Your task to perform on an android device: set default search engine in the chrome app Image 0: 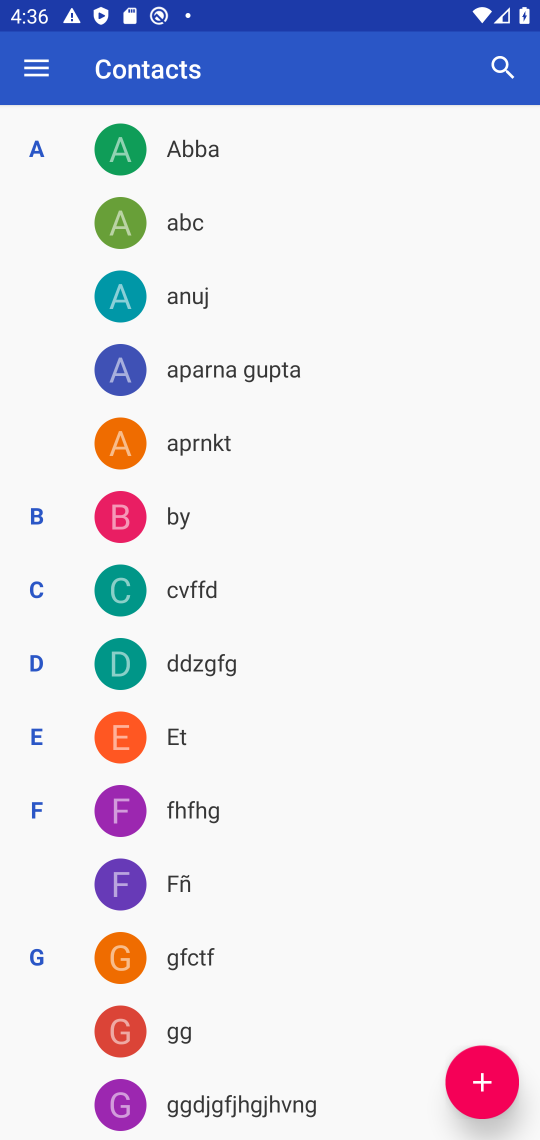
Step 0: press home button
Your task to perform on an android device: set default search engine in the chrome app Image 1: 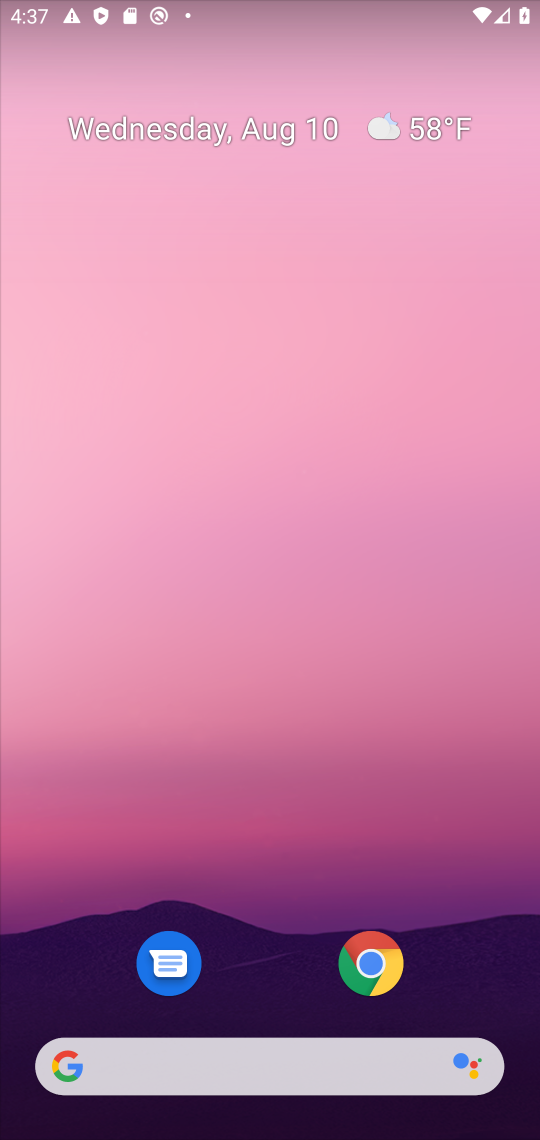
Step 1: drag from (247, 979) to (267, 107)
Your task to perform on an android device: set default search engine in the chrome app Image 2: 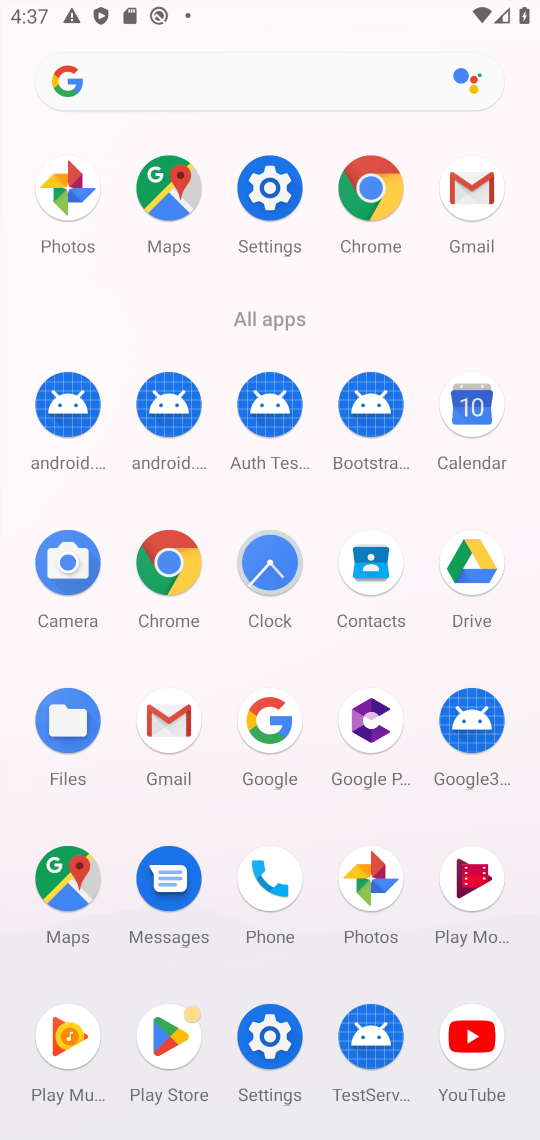
Step 2: click (162, 565)
Your task to perform on an android device: set default search engine in the chrome app Image 3: 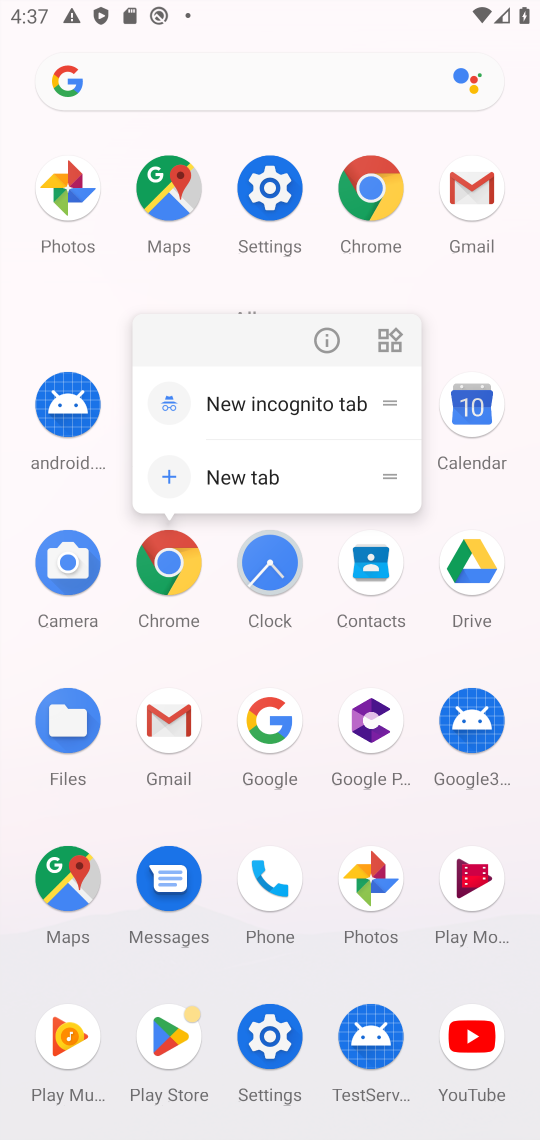
Step 3: click (145, 554)
Your task to perform on an android device: set default search engine in the chrome app Image 4: 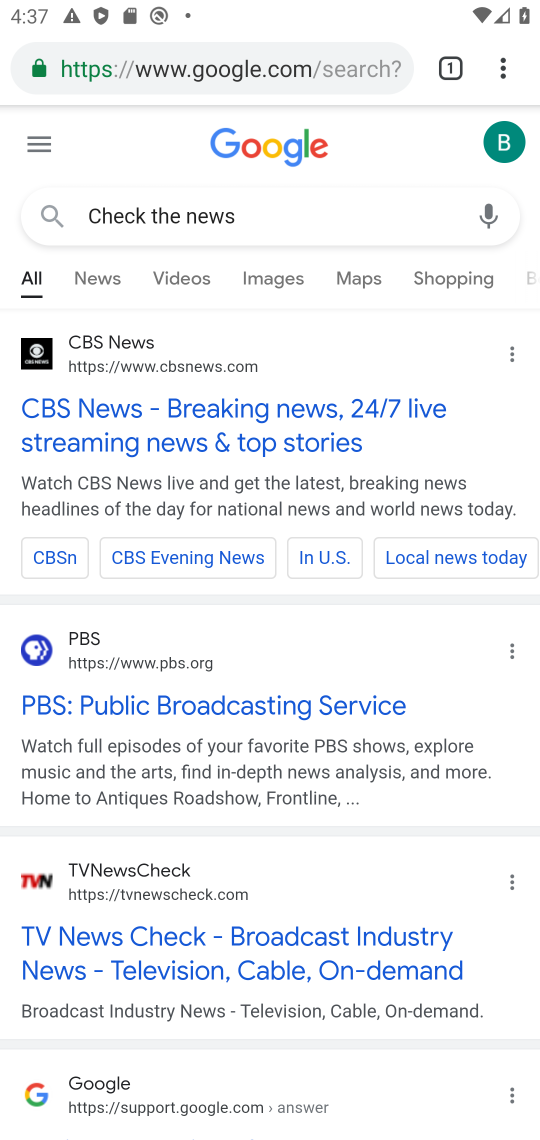
Step 4: drag from (492, 61) to (287, 776)
Your task to perform on an android device: set default search engine in the chrome app Image 5: 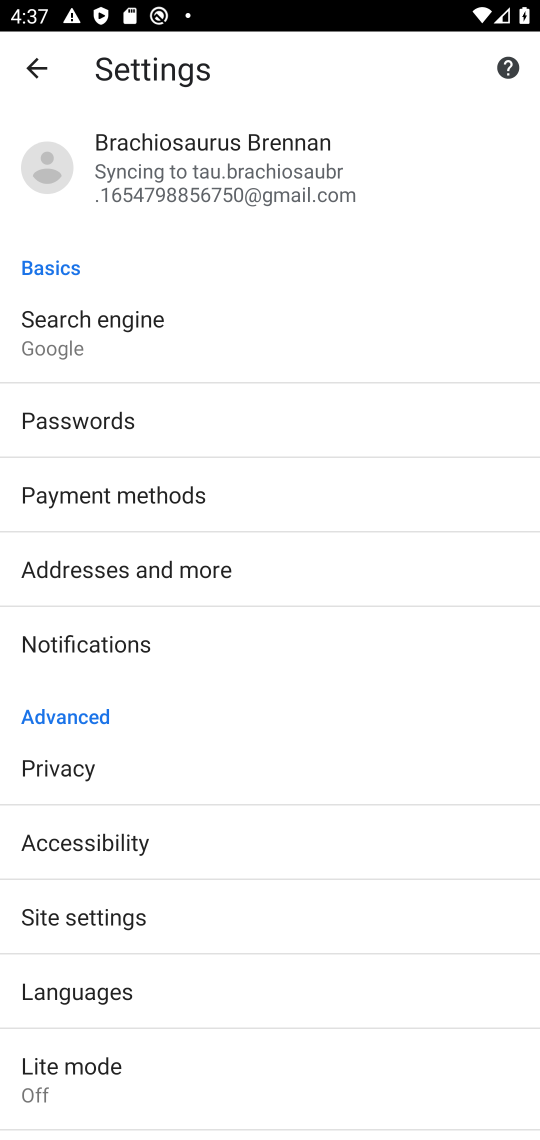
Step 5: click (137, 318)
Your task to perform on an android device: set default search engine in the chrome app Image 6: 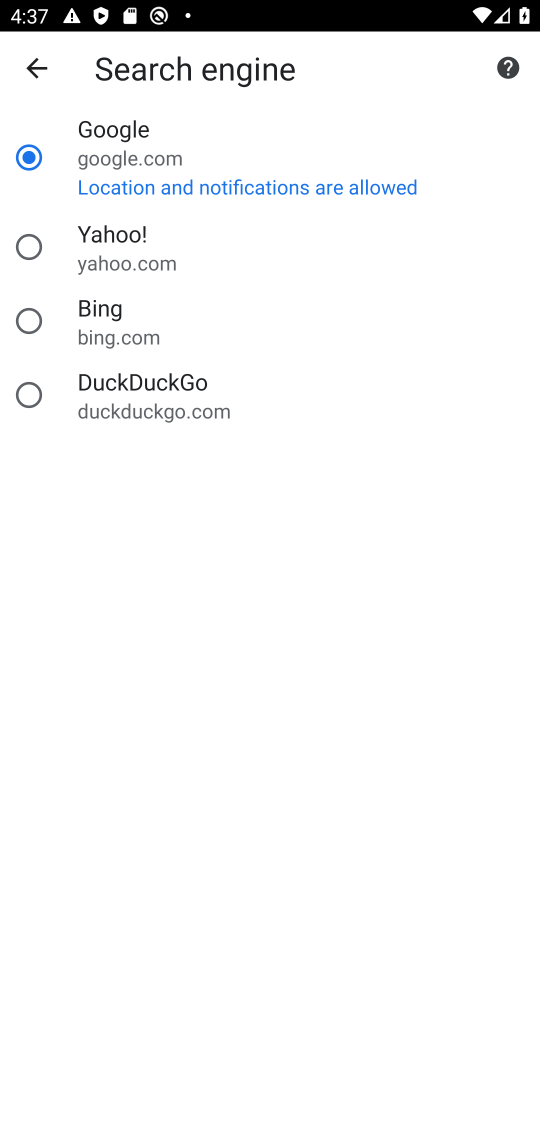
Step 6: task complete